Your task to perform on an android device: toggle priority inbox in the gmail app Image 0: 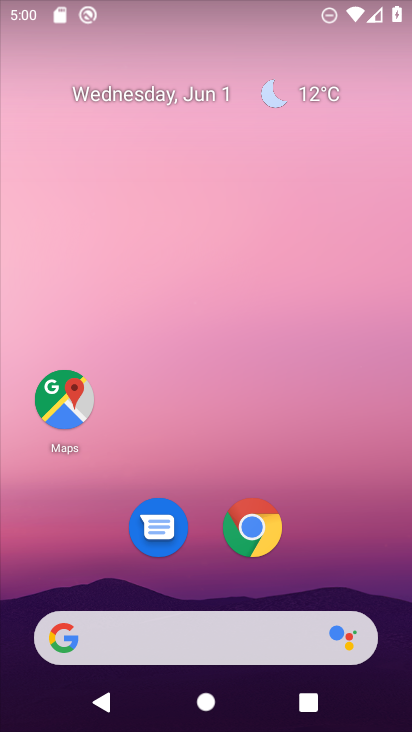
Step 0: drag from (163, 269) to (177, 75)
Your task to perform on an android device: toggle priority inbox in the gmail app Image 1: 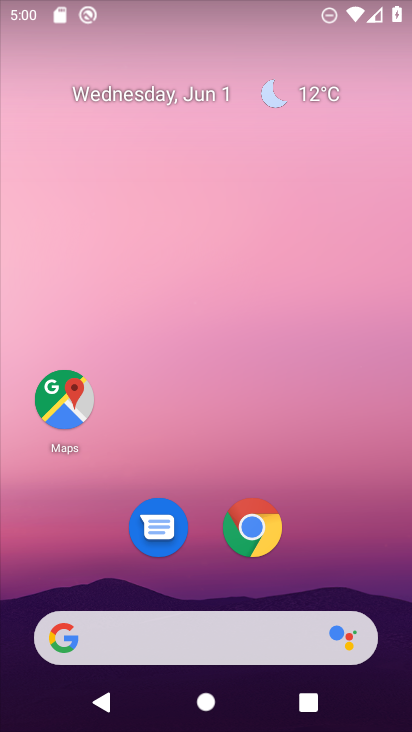
Step 1: drag from (217, 202) to (210, 98)
Your task to perform on an android device: toggle priority inbox in the gmail app Image 2: 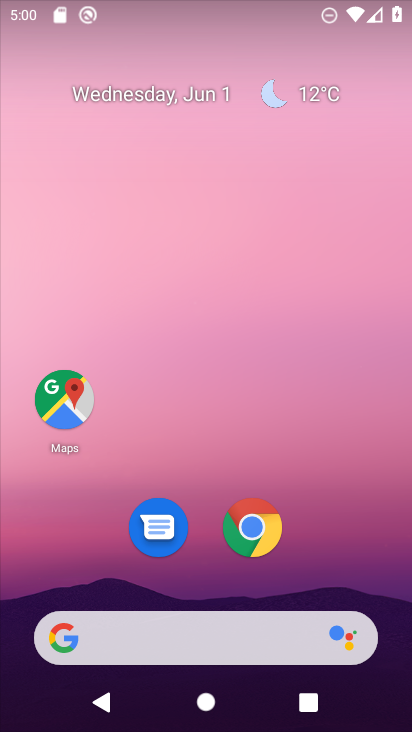
Step 2: drag from (240, 408) to (254, 95)
Your task to perform on an android device: toggle priority inbox in the gmail app Image 3: 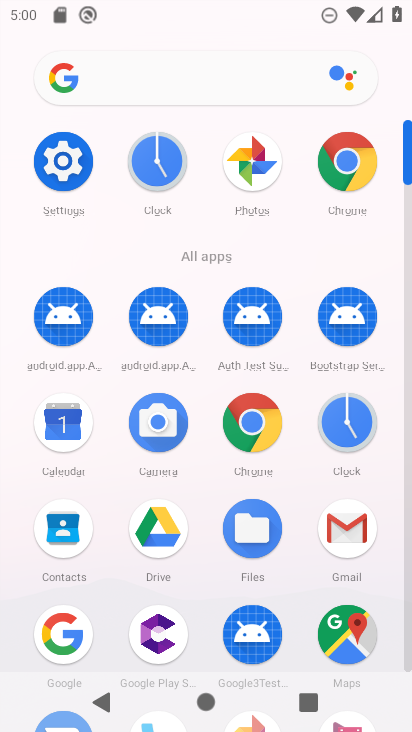
Step 3: click (355, 547)
Your task to perform on an android device: toggle priority inbox in the gmail app Image 4: 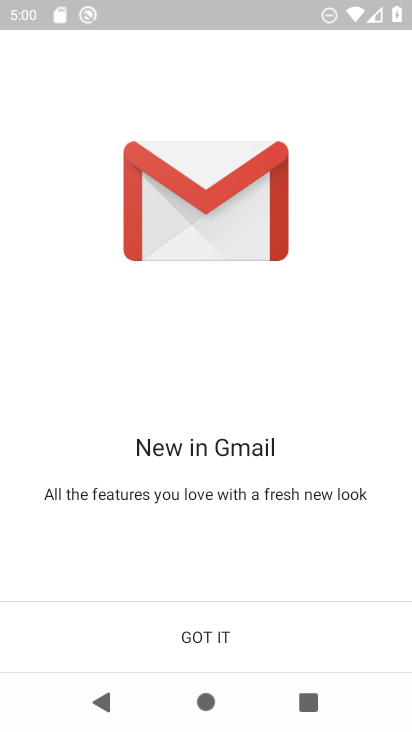
Step 4: click (168, 657)
Your task to perform on an android device: toggle priority inbox in the gmail app Image 5: 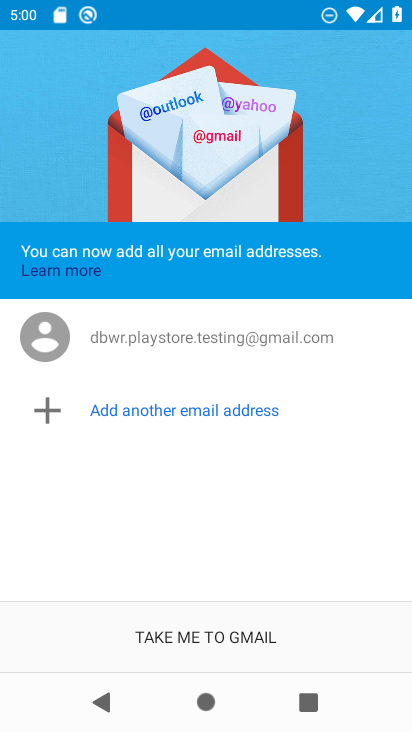
Step 5: click (168, 657)
Your task to perform on an android device: toggle priority inbox in the gmail app Image 6: 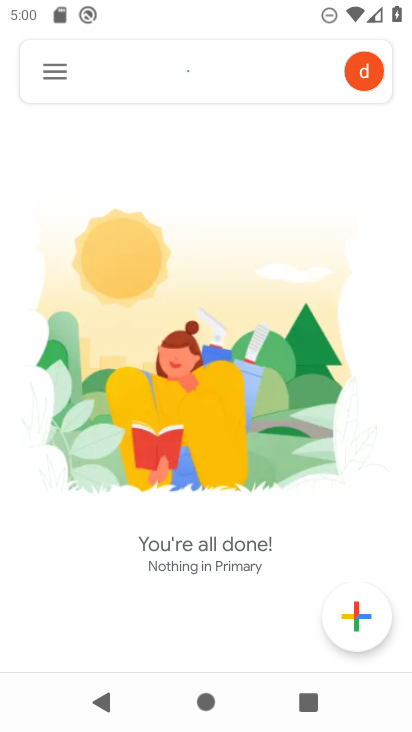
Step 6: click (56, 69)
Your task to perform on an android device: toggle priority inbox in the gmail app Image 7: 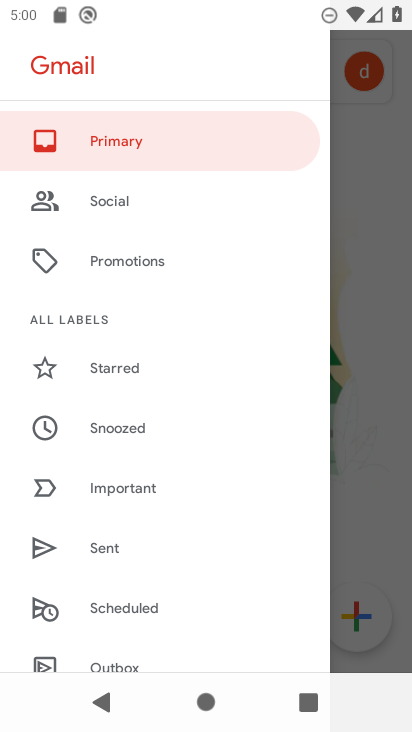
Step 7: drag from (131, 586) to (202, 39)
Your task to perform on an android device: toggle priority inbox in the gmail app Image 8: 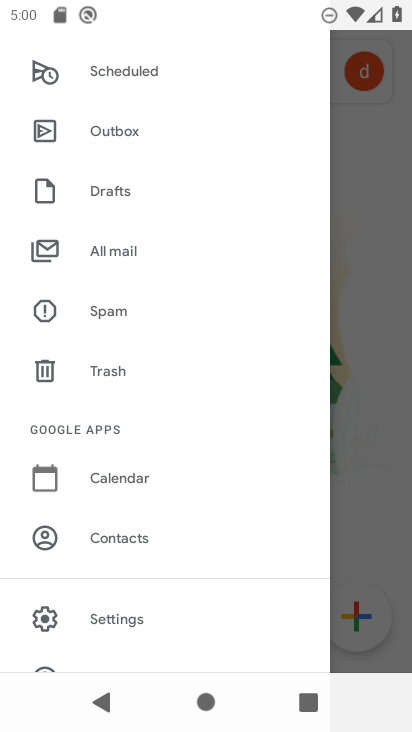
Step 8: click (79, 616)
Your task to perform on an android device: toggle priority inbox in the gmail app Image 9: 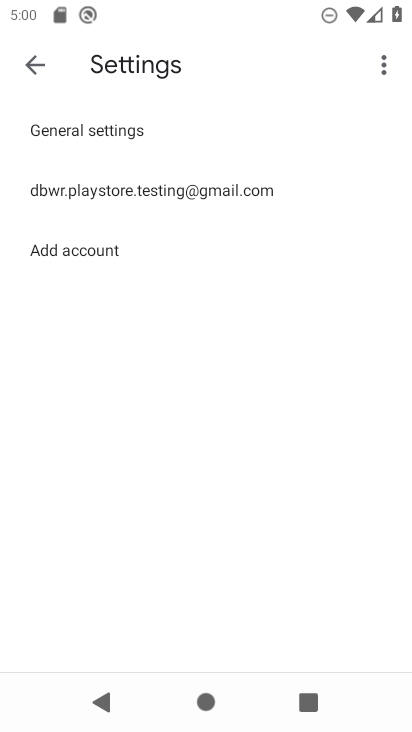
Step 9: click (198, 207)
Your task to perform on an android device: toggle priority inbox in the gmail app Image 10: 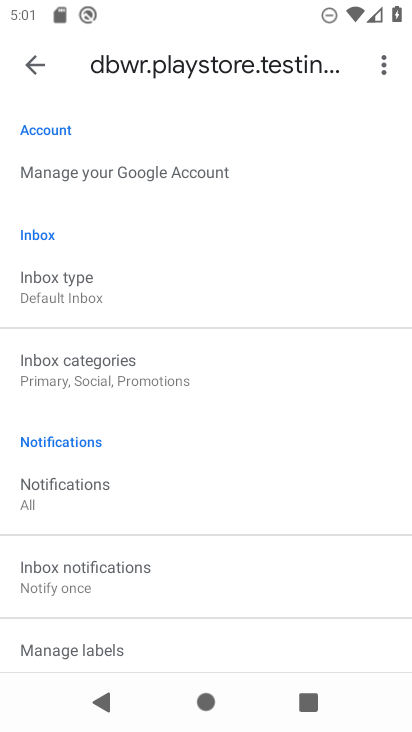
Step 10: click (57, 290)
Your task to perform on an android device: toggle priority inbox in the gmail app Image 11: 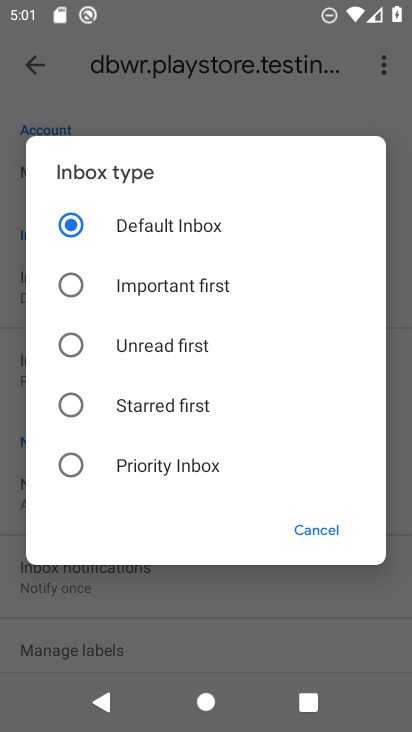
Step 11: click (227, 483)
Your task to perform on an android device: toggle priority inbox in the gmail app Image 12: 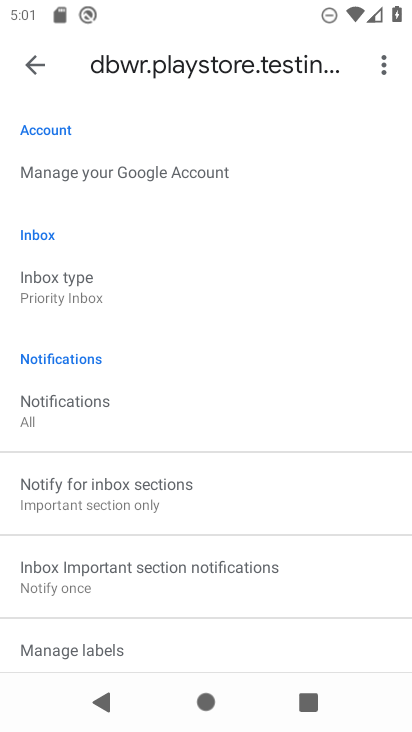
Step 12: task complete